Your task to perform on an android device: change alarm snooze length Image 0: 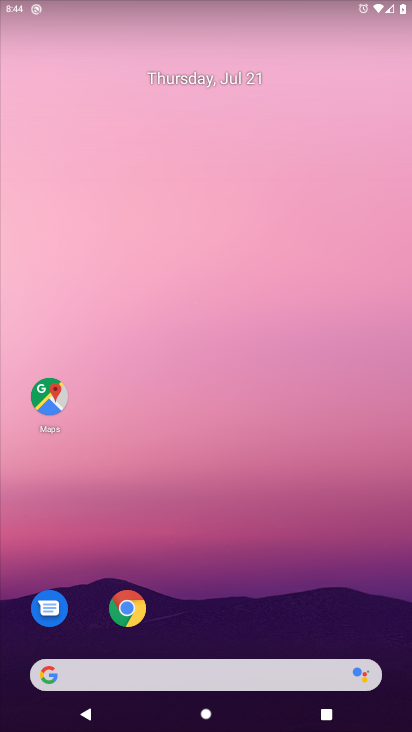
Step 0: drag from (109, 304) to (189, 120)
Your task to perform on an android device: change alarm snooze length Image 1: 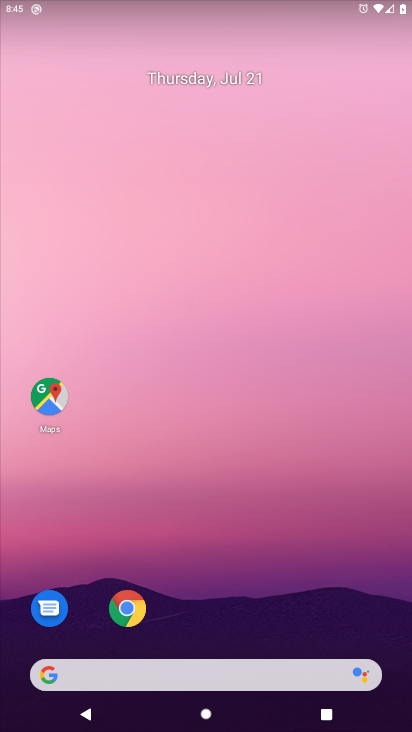
Step 1: drag from (38, 711) to (302, 41)
Your task to perform on an android device: change alarm snooze length Image 2: 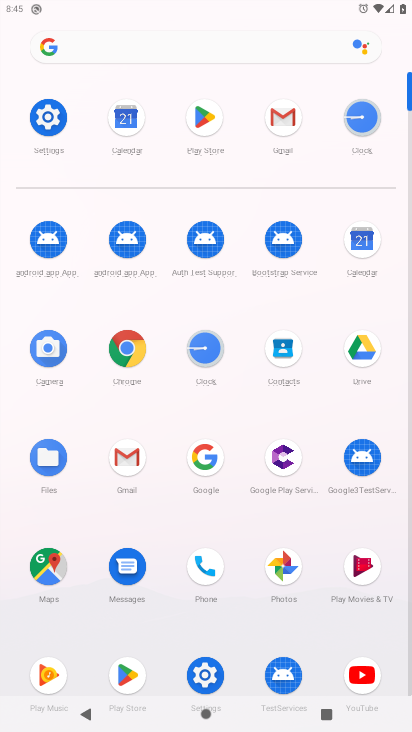
Step 2: click (216, 665)
Your task to perform on an android device: change alarm snooze length Image 3: 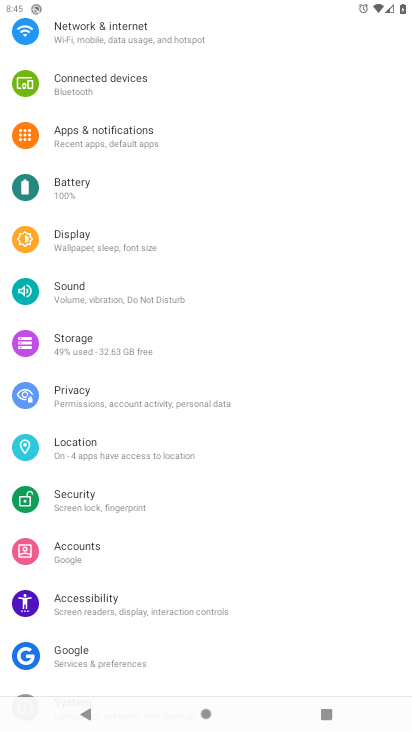
Step 3: press home button
Your task to perform on an android device: change alarm snooze length Image 4: 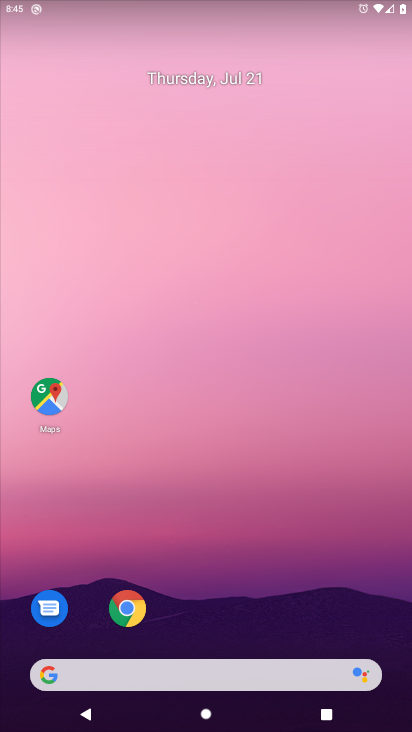
Step 4: drag from (12, 681) to (384, 0)
Your task to perform on an android device: change alarm snooze length Image 5: 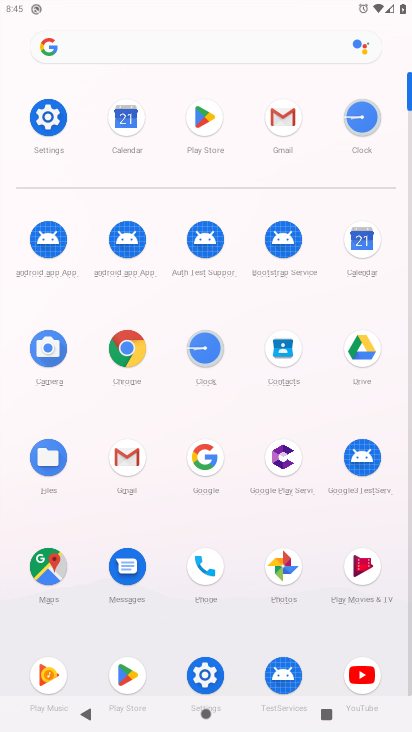
Step 5: click (353, 118)
Your task to perform on an android device: change alarm snooze length Image 6: 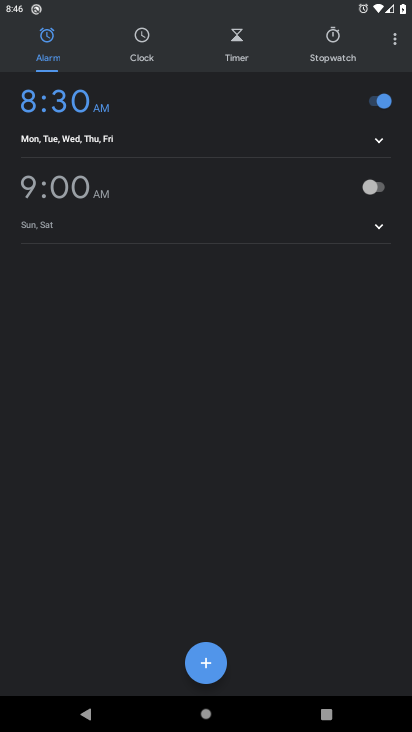
Step 6: click (392, 38)
Your task to perform on an android device: change alarm snooze length Image 7: 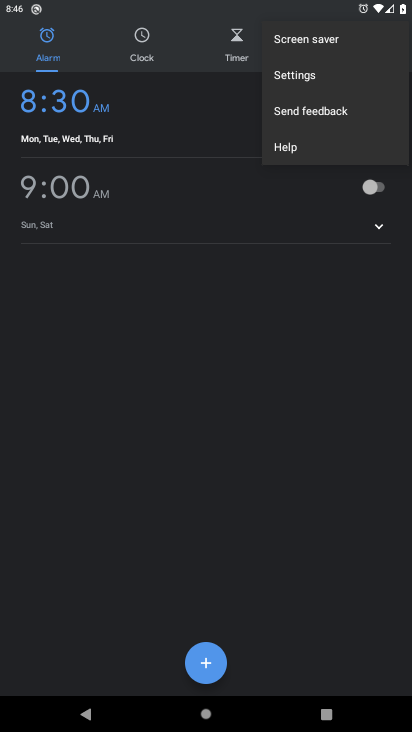
Step 7: click (295, 77)
Your task to perform on an android device: change alarm snooze length Image 8: 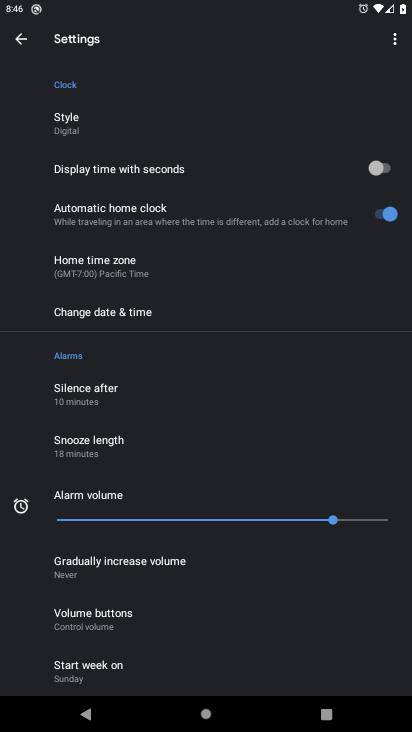
Step 8: click (106, 443)
Your task to perform on an android device: change alarm snooze length Image 9: 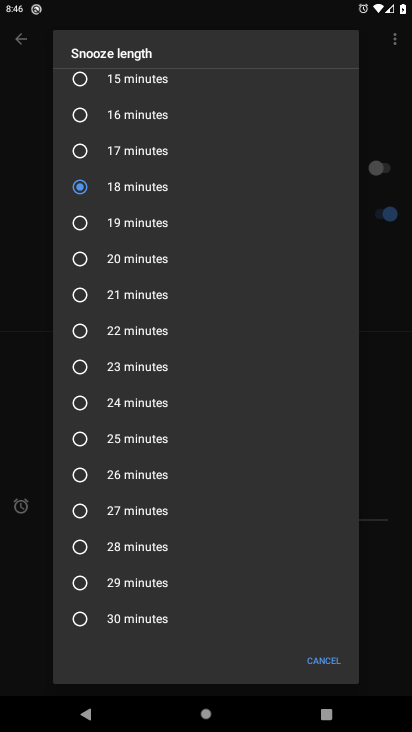
Step 9: click (68, 262)
Your task to perform on an android device: change alarm snooze length Image 10: 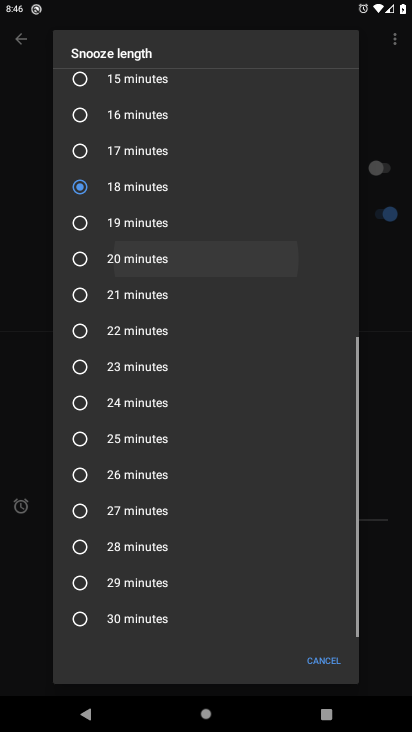
Step 10: click (82, 258)
Your task to perform on an android device: change alarm snooze length Image 11: 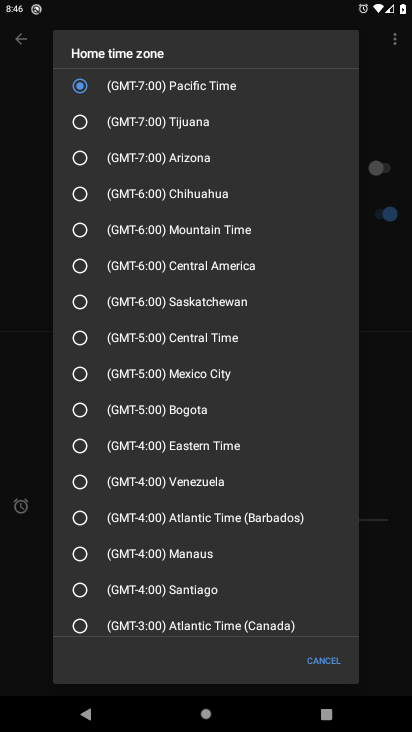
Step 11: click (310, 652)
Your task to perform on an android device: change alarm snooze length Image 12: 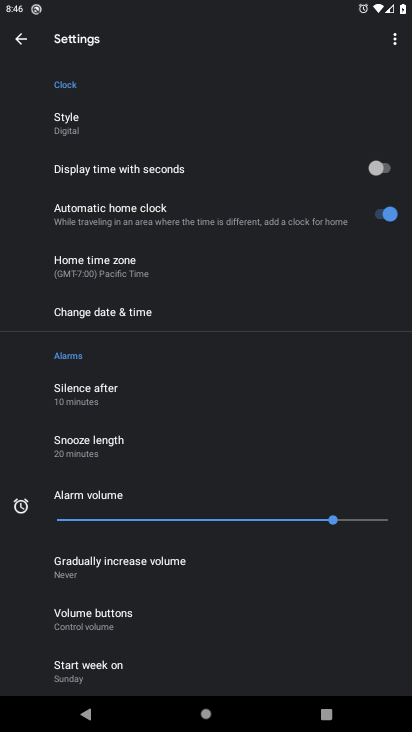
Step 12: click (120, 447)
Your task to perform on an android device: change alarm snooze length Image 13: 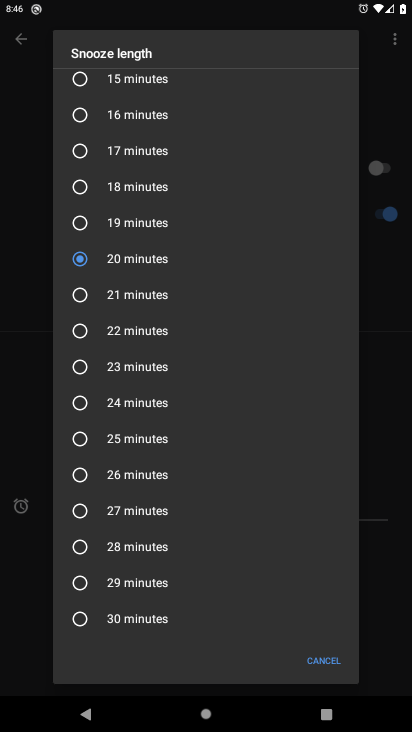
Step 13: click (73, 436)
Your task to perform on an android device: change alarm snooze length Image 14: 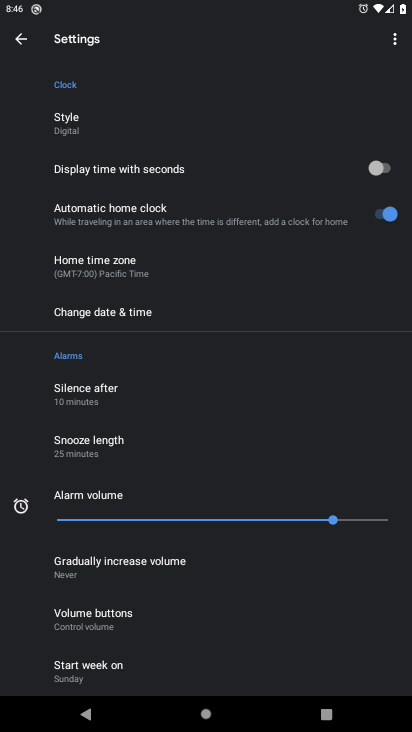
Step 14: task complete